Your task to perform on an android device: search for starred emails in the gmail app Image 0: 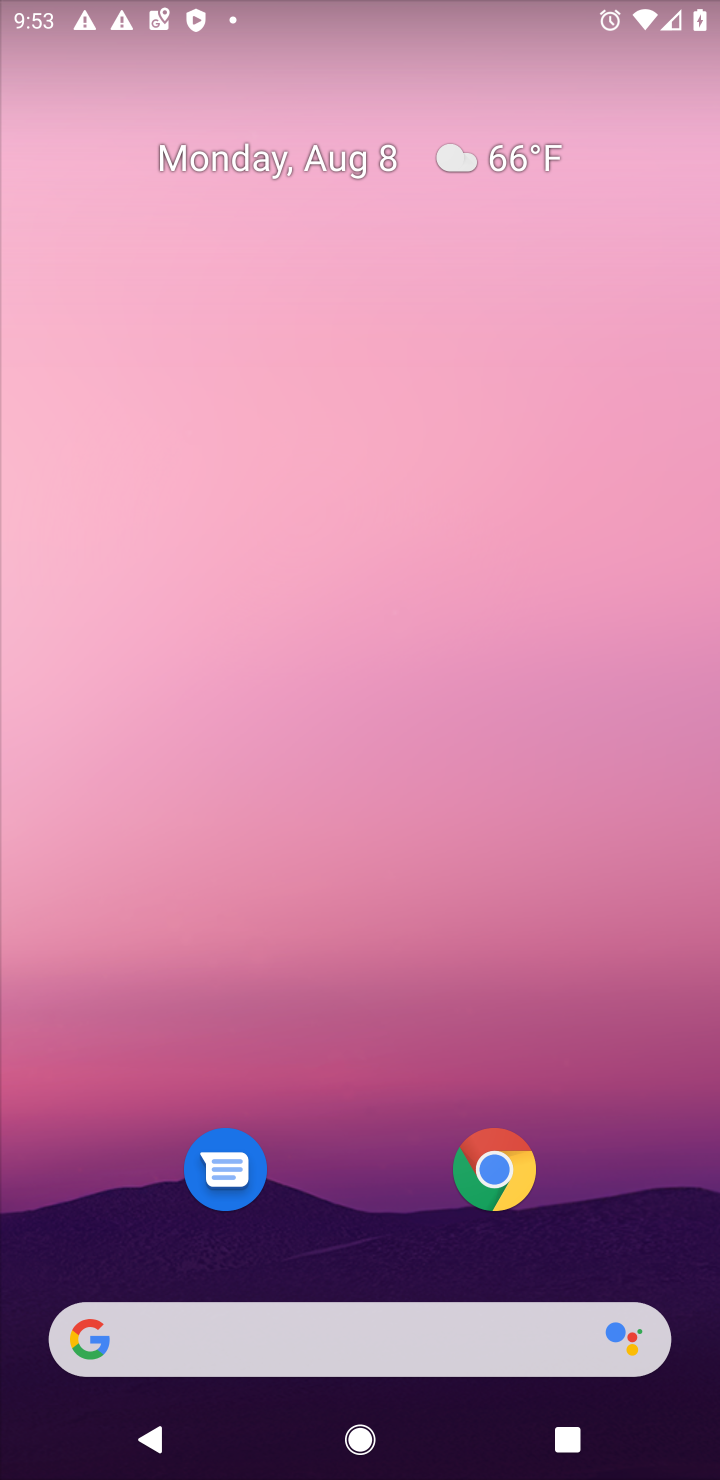
Step 0: drag from (305, 1314) to (349, 223)
Your task to perform on an android device: search for starred emails in the gmail app Image 1: 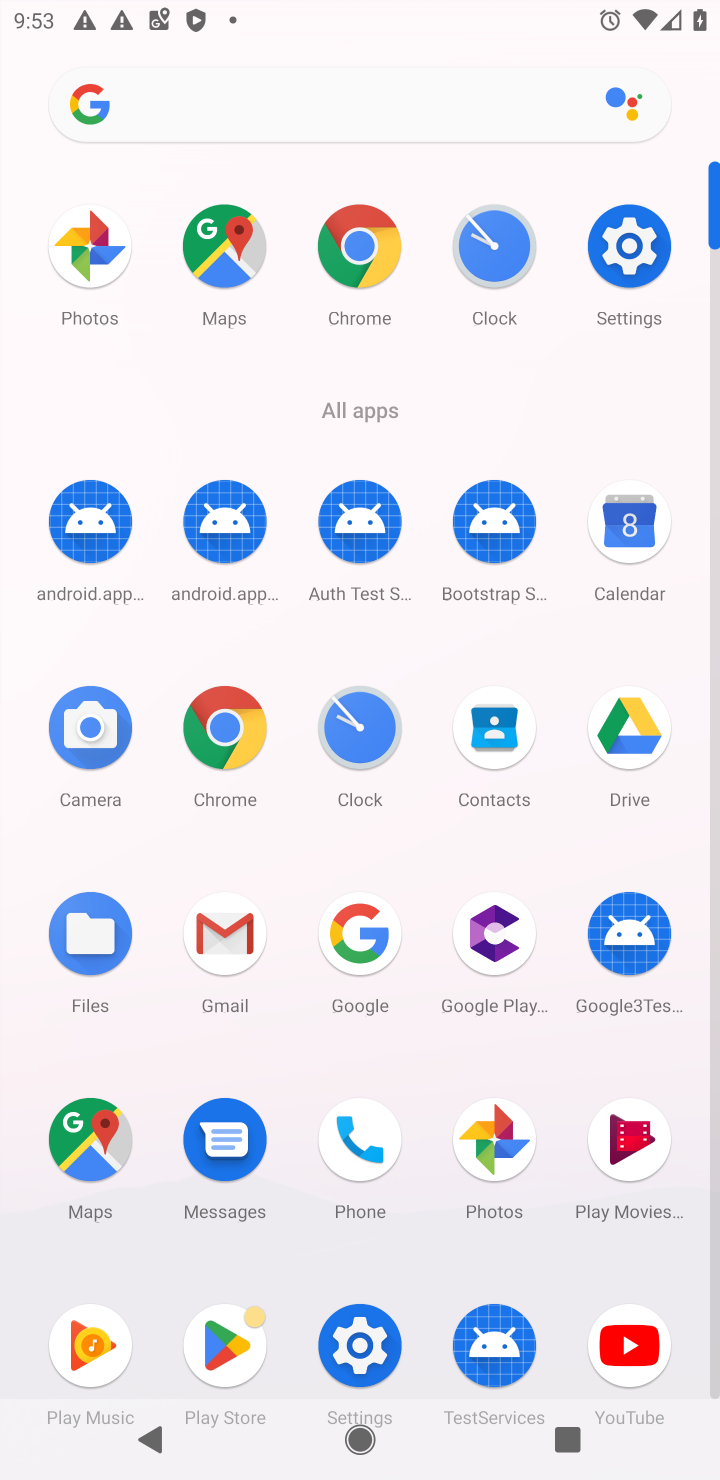
Step 1: click (224, 939)
Your task to perform on an android device: search for starred emails in the gmail app Image 2: 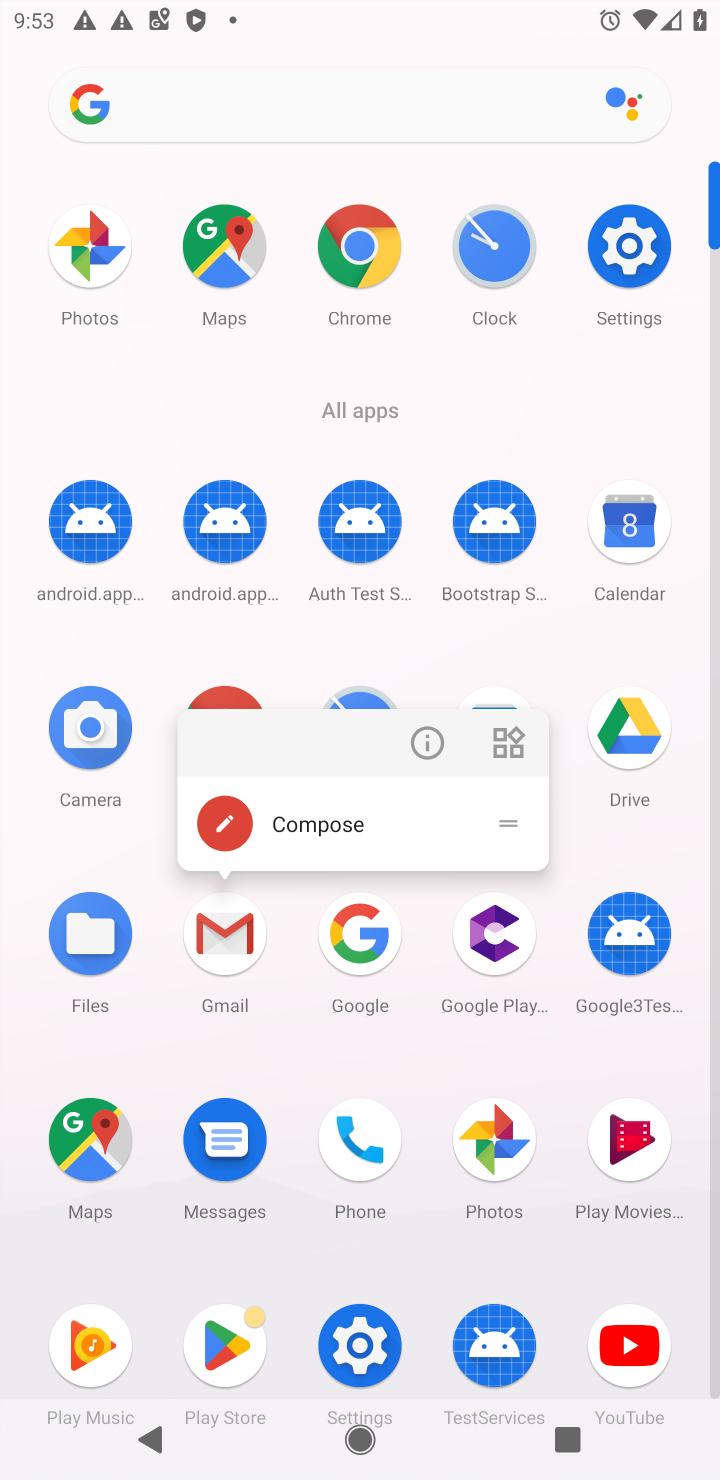
Step 2: click (206, 944)
Your task to perform on an android device: search for starred emails in the gmail app Image 3: 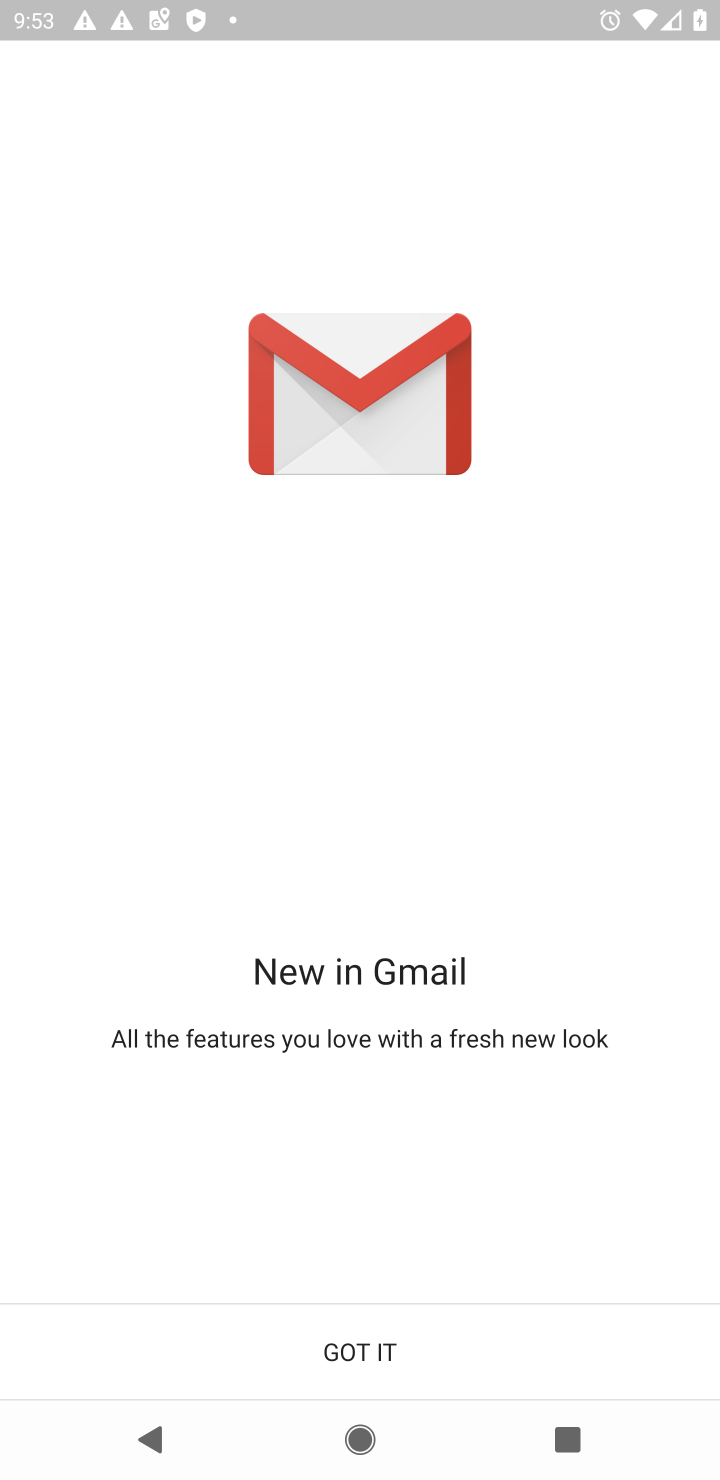
Step 3: click (367, 1340)
Your task to perform on an android device: search for starred emails in the gmail app Image 4: 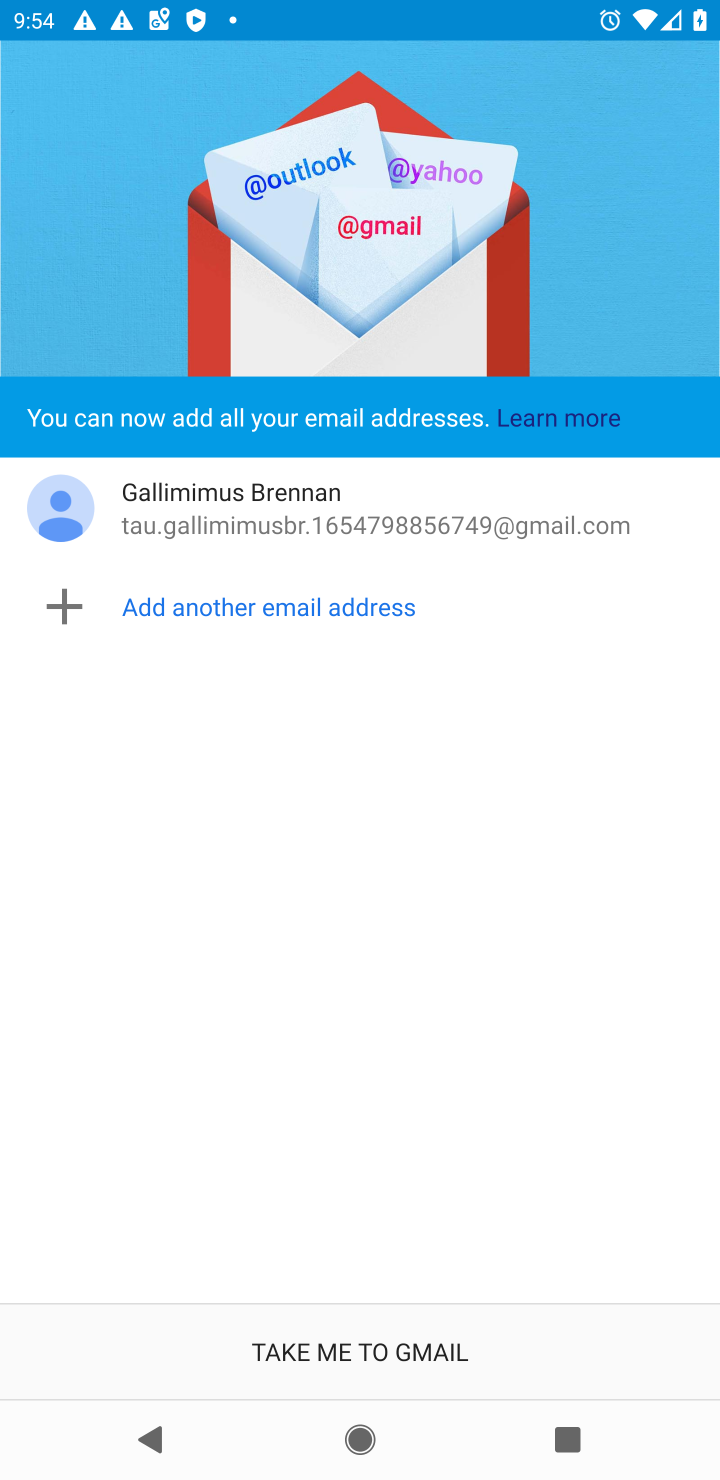
Step 4: click (317, 1347)
Your task to perform on an android device: search for starred emails in the gmail app Image 5: 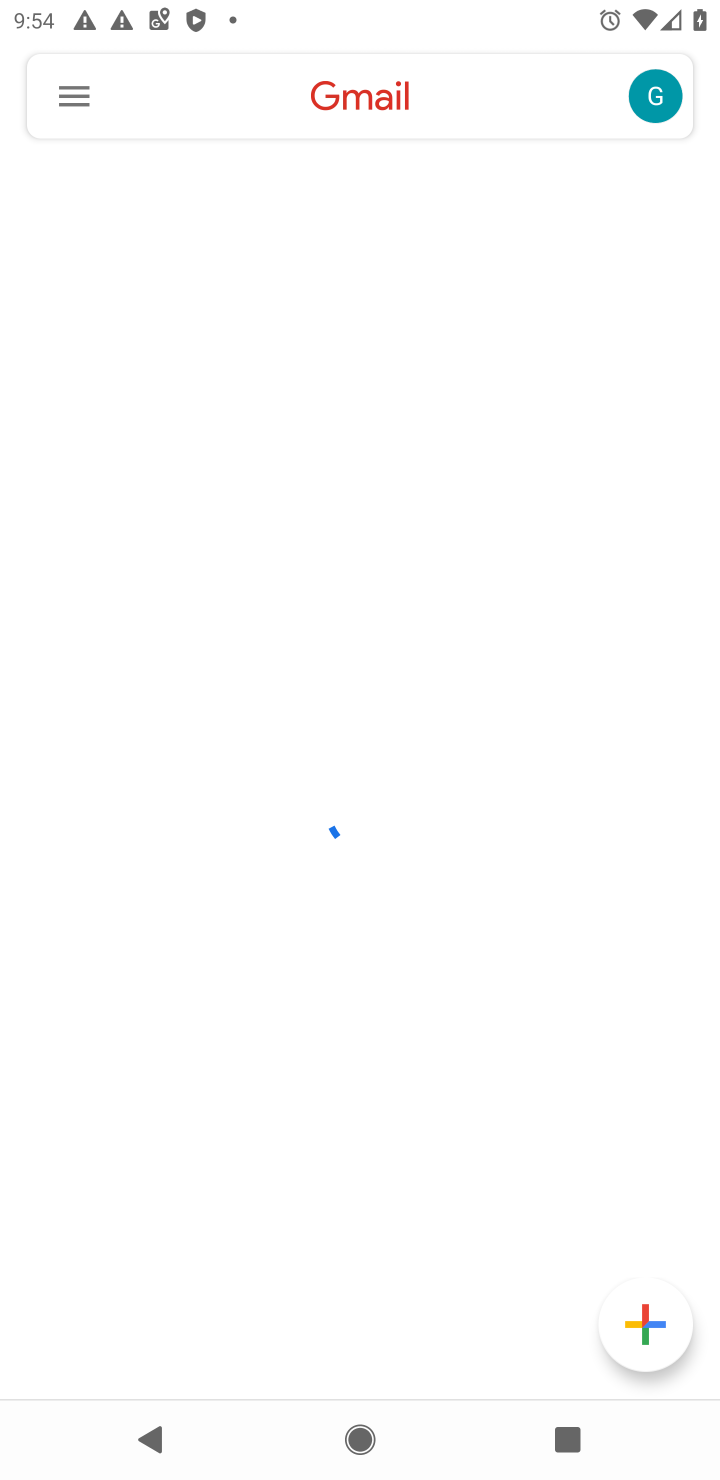
Step 5: click (97, 100)
Your task to perform on an android device: search for starred emails in the gmail app Image 6: 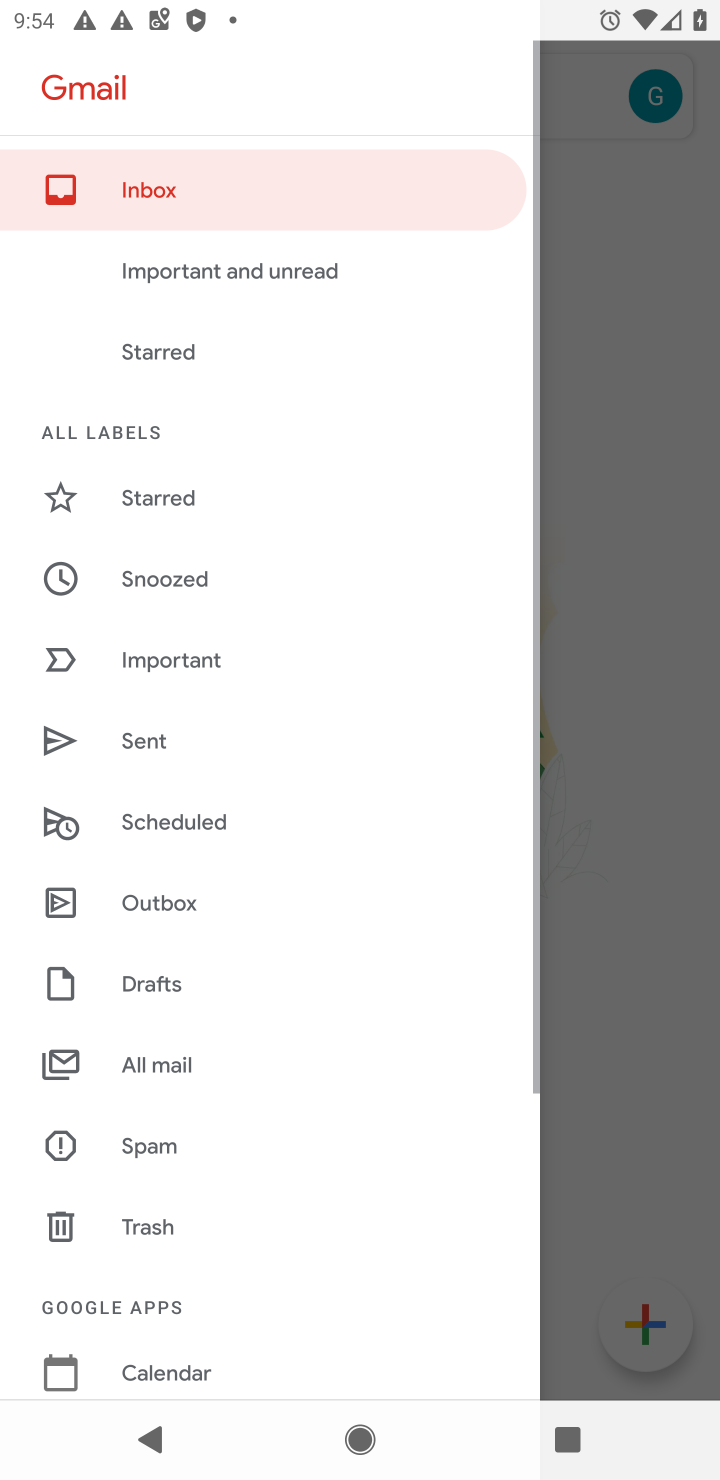
Step 6: click (179, 504)
Your task to perform on an android device: search for starred emails in the gmail app Image 7: 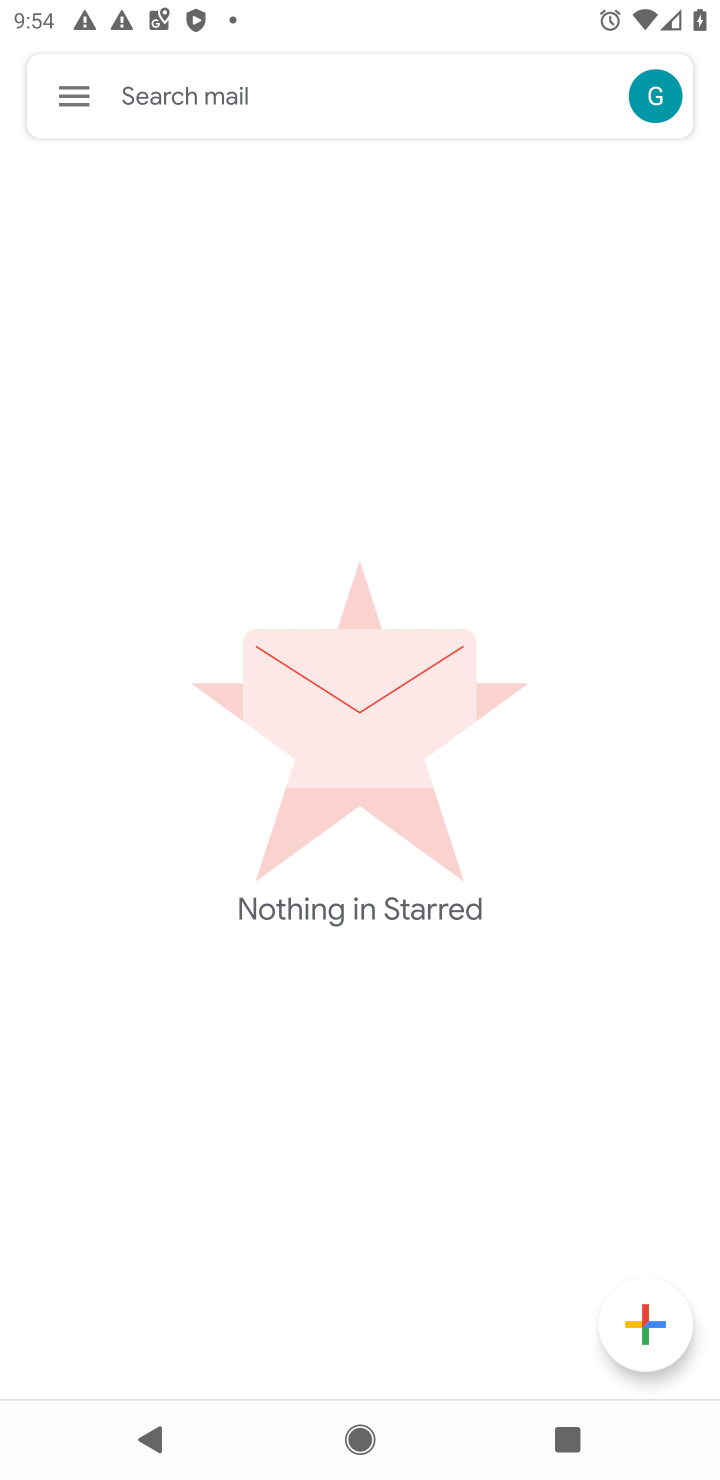
Step 7: task complete